Your task to perform on an android device: open app "WhatsApp Messenger" (install if not already installed) and enter user name: "cartons@outlook.com" and password: "approximated" Image 0: 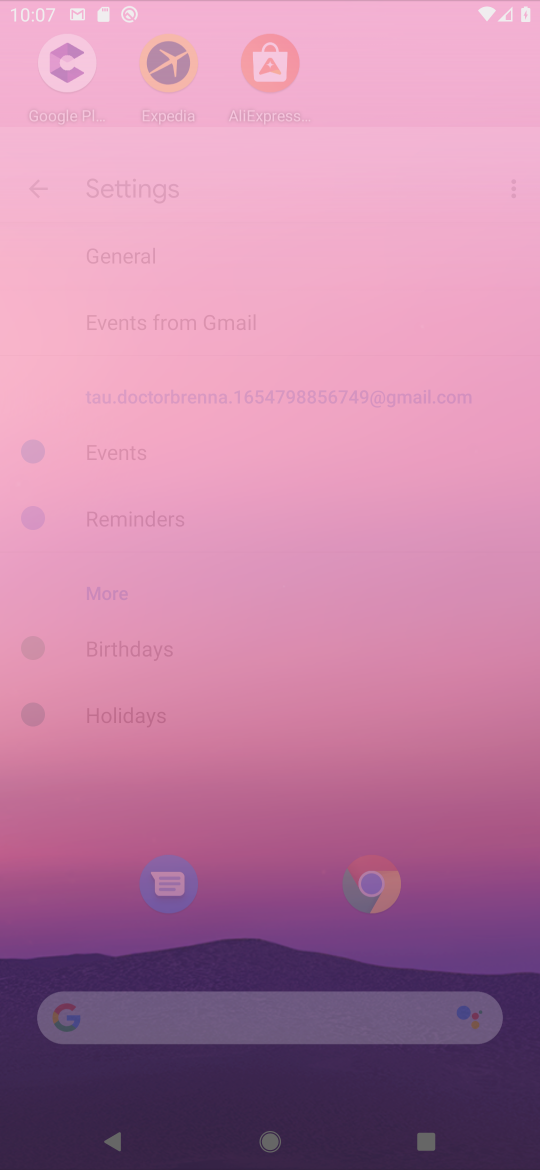
Step 0: press home button
Your task to perform on an android device: open app "WhatsApp Messenger" (install if not already installed) and enter user name: "cartons@outlook.com" and password: "approximated" Image 1: 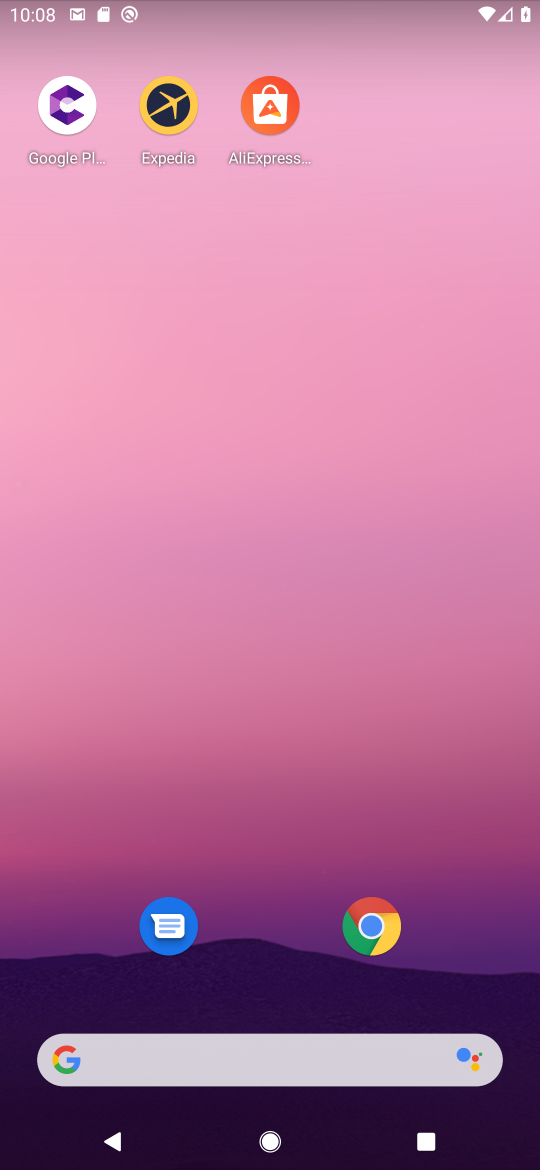
Step 1: drag from (284, 404) to (336, 288)
Your task to perform on an android device: open app "WhatsApp Messenger" (install if not already installed) and enter user name: "cartons@outlook.com" and password: "approximated" Image 2: 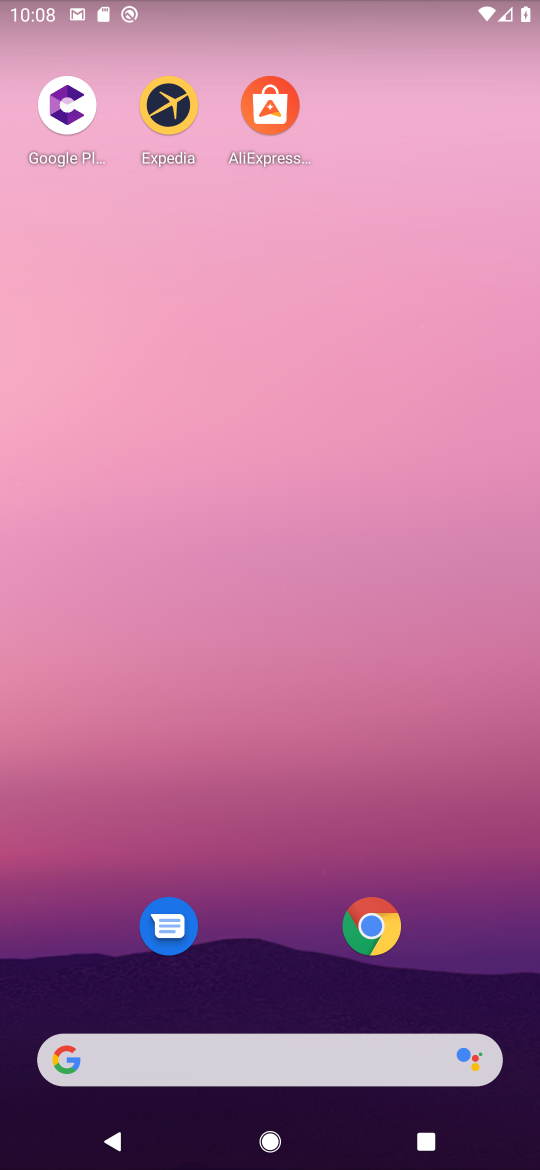
Step 2: drag from (274, 1020) to (355, 183)
Your task to perform on an android device: open app "WhatsApp Messenger" (install if not already installed) and enter user name: "cartons@outlook.com" and password: "approximated" Image 3: 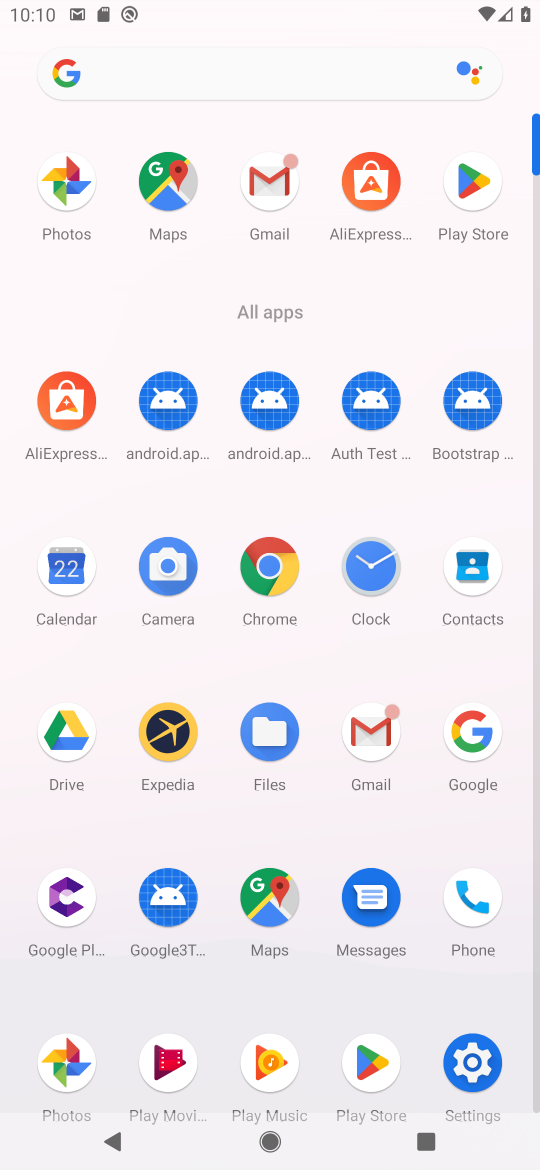
Step 3: click (462, 210)
Your task to perform on an android device: open app "WhatsApp Messenger" (install if not already installed) and enter user name: "cartons@outlook.com" and password: "approximated" Image 4: 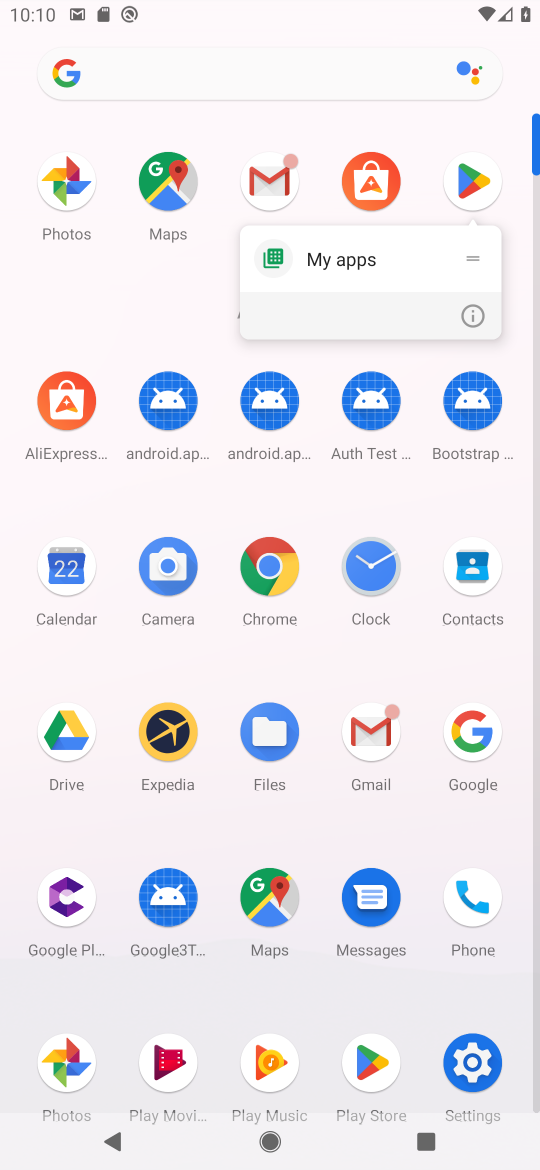
Step 4: click (467, 191)
Your task to perform on an android device: open app "WhatsApp Messenger" (install if not already installed) and enter user name: "cartons@outlook.com" and password: "approximated" Image 5: 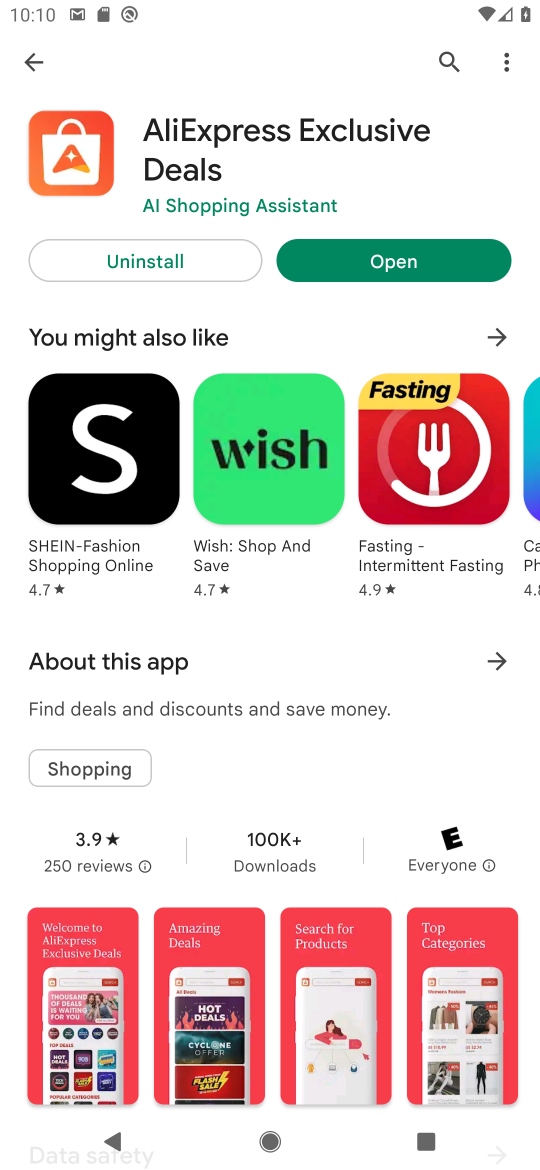
Step 5: press back button
Your task to perform on an android device: open app "WhatsApp Messenger" (install if not already installed) and enter user name: "cartons@outlook.com" and password: "approximated" Image 6: 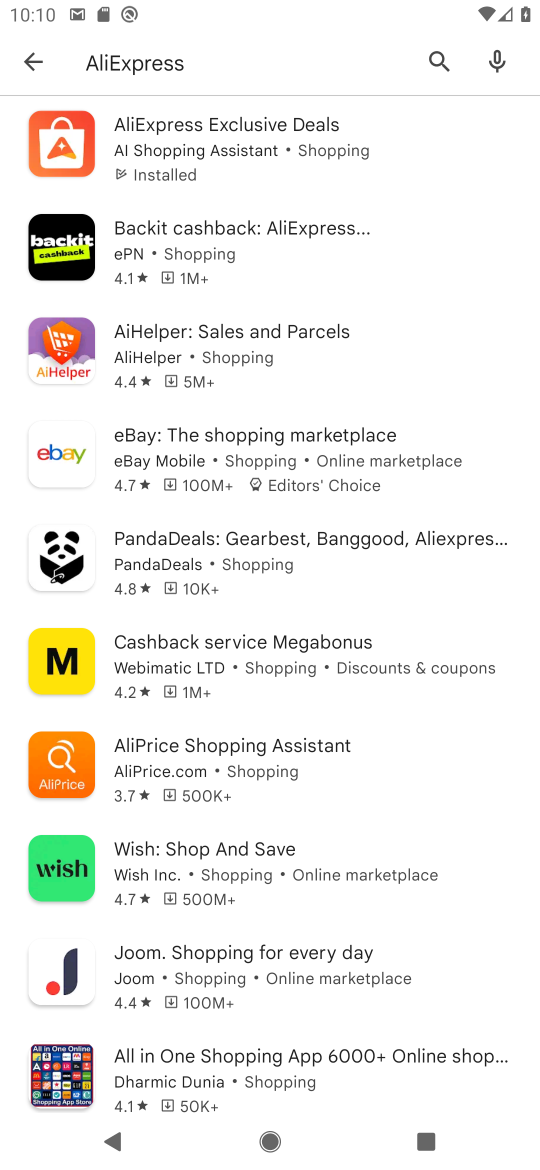
Step 6: press enter
Your task to perform on an android device: open app "WhatsApp Messenger" (install if not already installed) and enter user name: "cartons@outlook.com" and password: "approximated" Image 7: 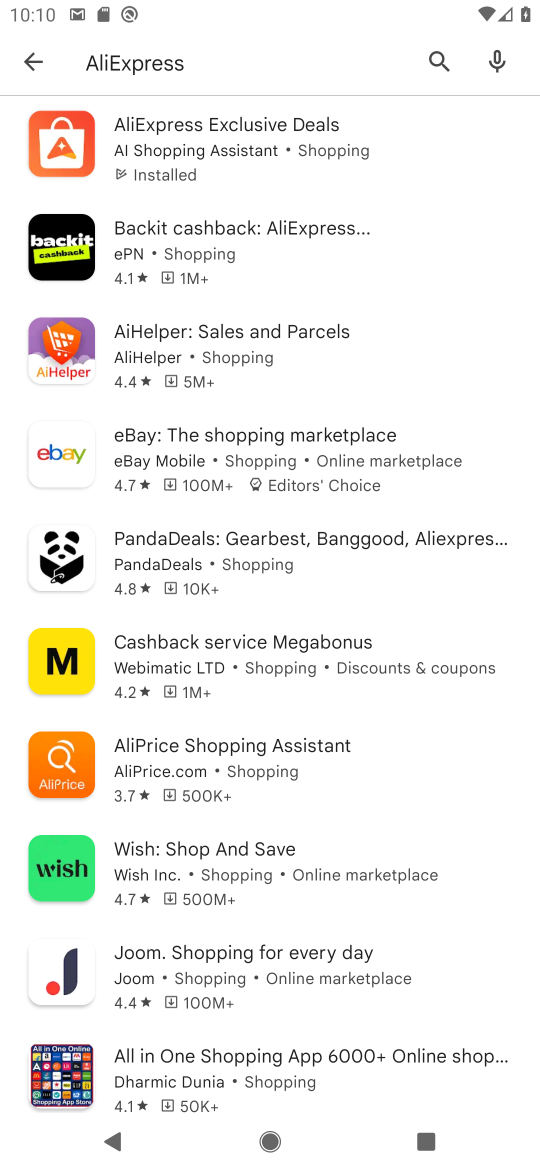
Step 7: type "WhatsApp Messenger"
Your task to perform on an android device: open app "WhatsApp Messenger" (install if not already installed) and enter user name: "cartons@outlook.com" and password: "approximated" Image 8: 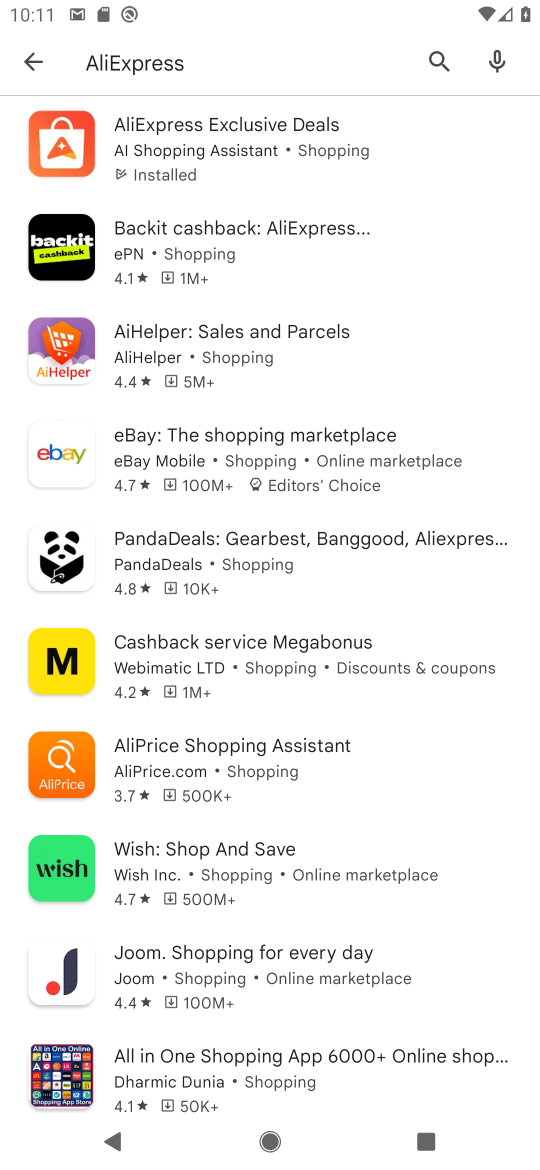
Step 8: press back button
Your task to perform on an android device: open app "WhatsApp Messenger" (install if not already installed) and enter user name: "cartons@outlook.com" and password: "approximated" Image 9: 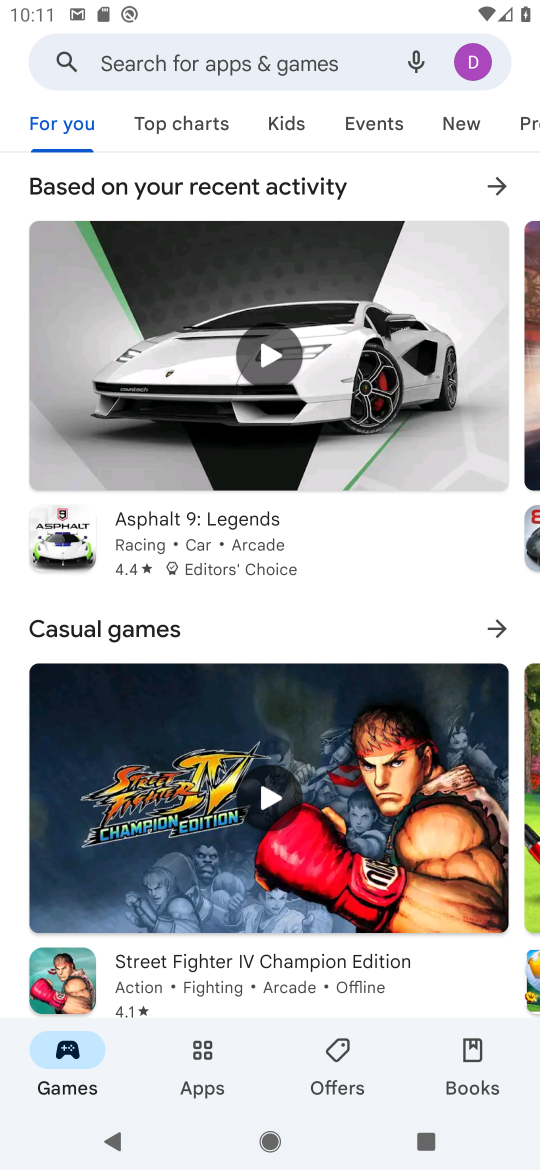
Step 9: click (213, 76)
Your task to perform on an android device: open app "WhatsApp Messenger" (install if not already installed) and enter user name: "cartons@outlook.com" and password: "approximated" Image 10: 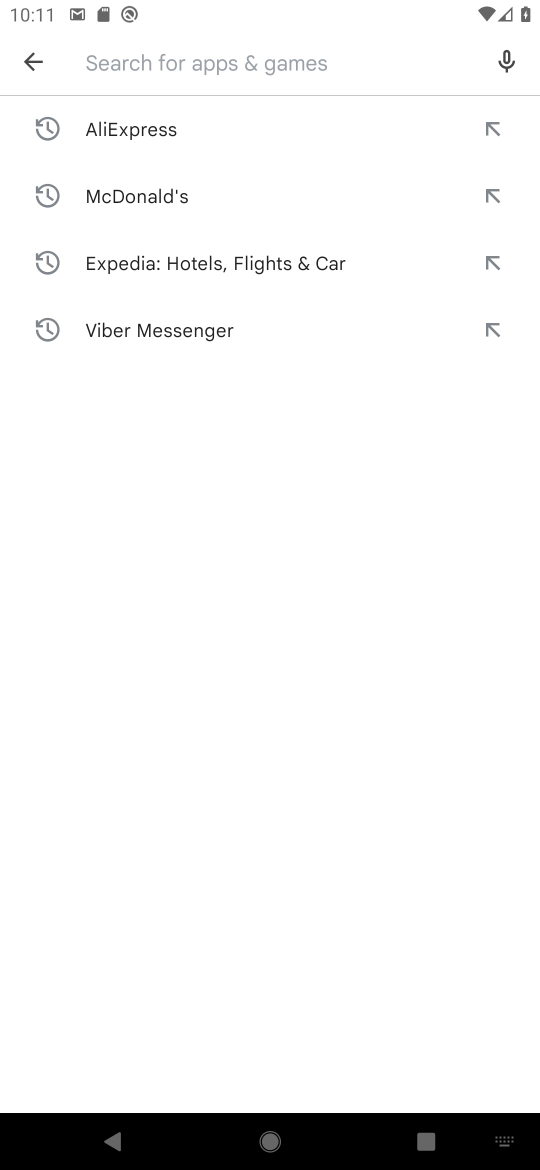
Step 10: drag from (10, 1154) to (89, 843)
Your task to perform on an android device: open app "WhatsApp Messenger" (install if not already installed) and enter user name: "cartons@outlook.com" and password: "approximated" Image 11: 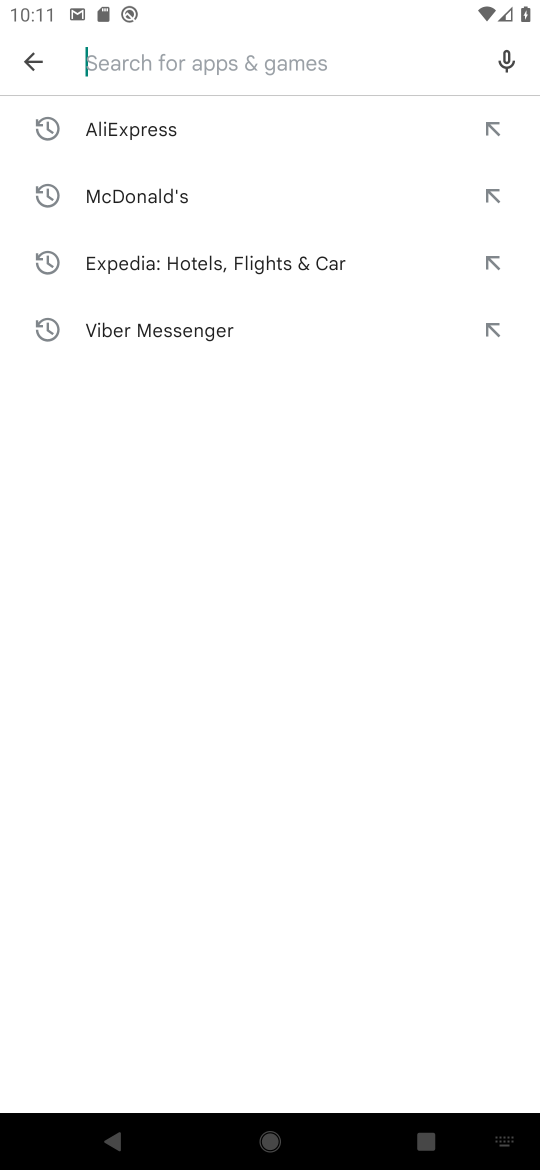
Step 11: type "WhatsApp Messenge"
Your task to perform on an android device: open app "WhatsApp Messenger" (install if not already installed) and enter user name: "cartons@outlook.com" and password: "approximated" Image 12: 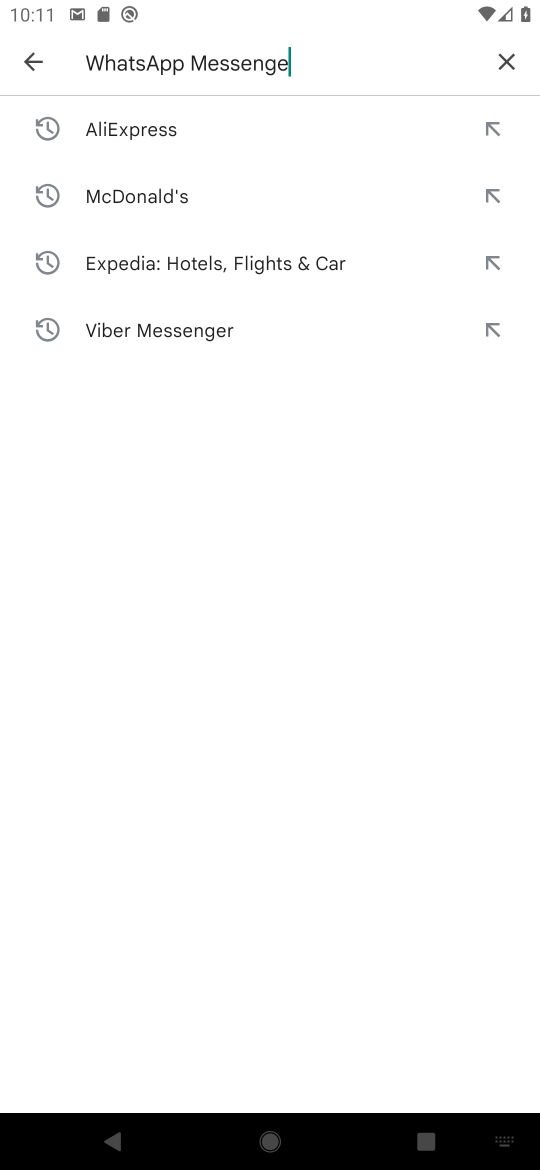
Step 12: press enter
Your task to perform on an android device: open app "WhatsApp Messenger" (install if not already installed) and enter user name: "cartons@outlook.com" and password: "approximated" Image 13: 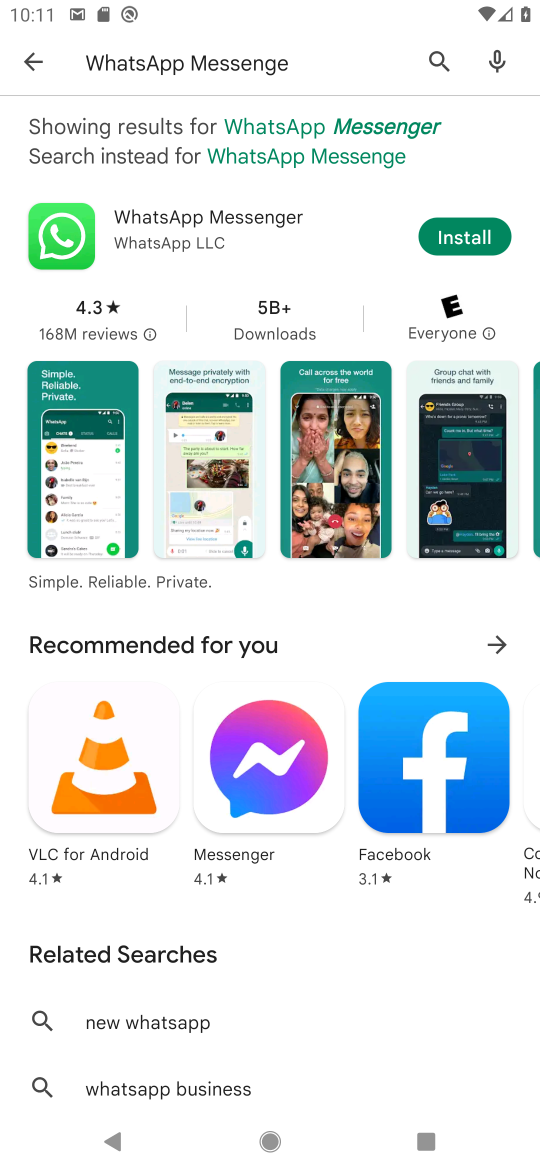
Step 13: click (459, 237)
Your task to perform on an android device: open app "WhatsApp Messenger" (install if not already installed) and enter user name: "cartons@outlook.com" and password: "approximated" Image 14: 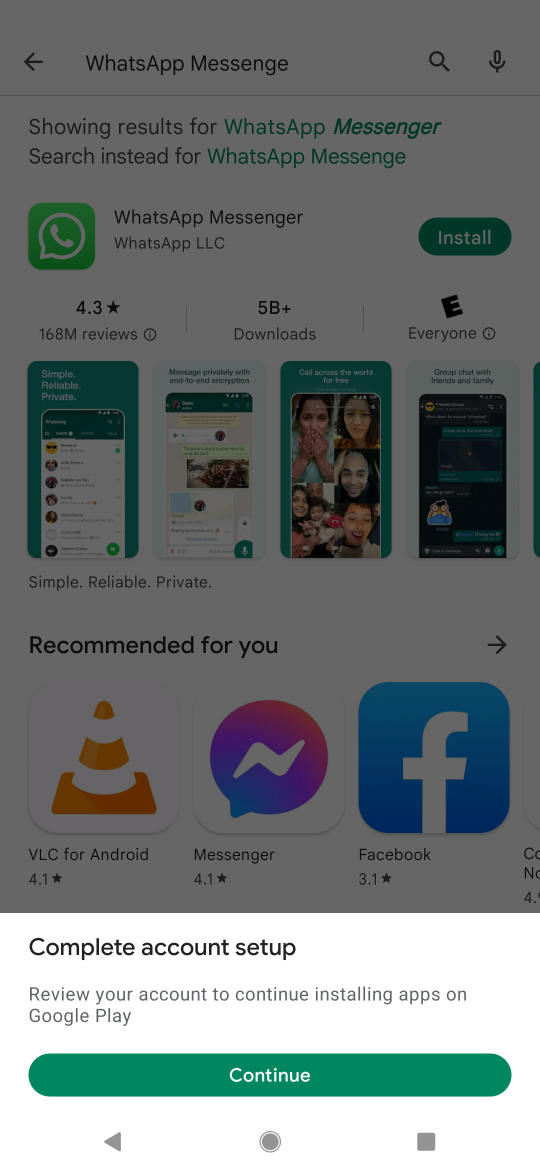
Step 14: click (255, 1089)
Your task to perform on an android device: open app "WhatsApp Messenger" (install if not already installed) and enter user name: "cartons@outlook.com" and password: "approximated" Image 15: 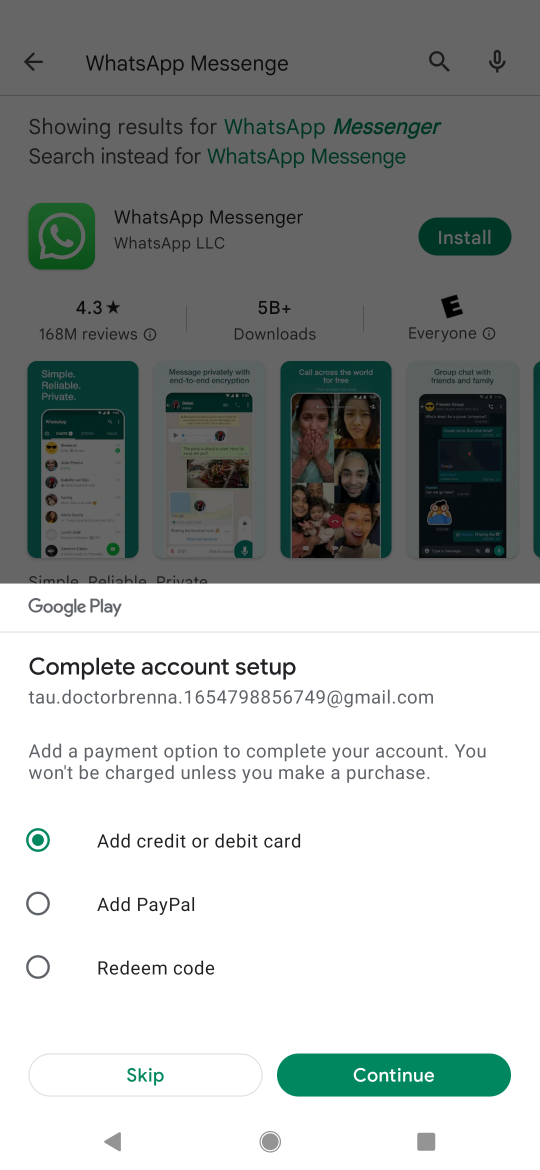
Step 15: click (160, 1089)
Your task to perform on an android device: open app "WhatsApp Messenger" (install if not already installed) and enter user name: "cartons@outlook.com" and password: "approximated" Image 16: 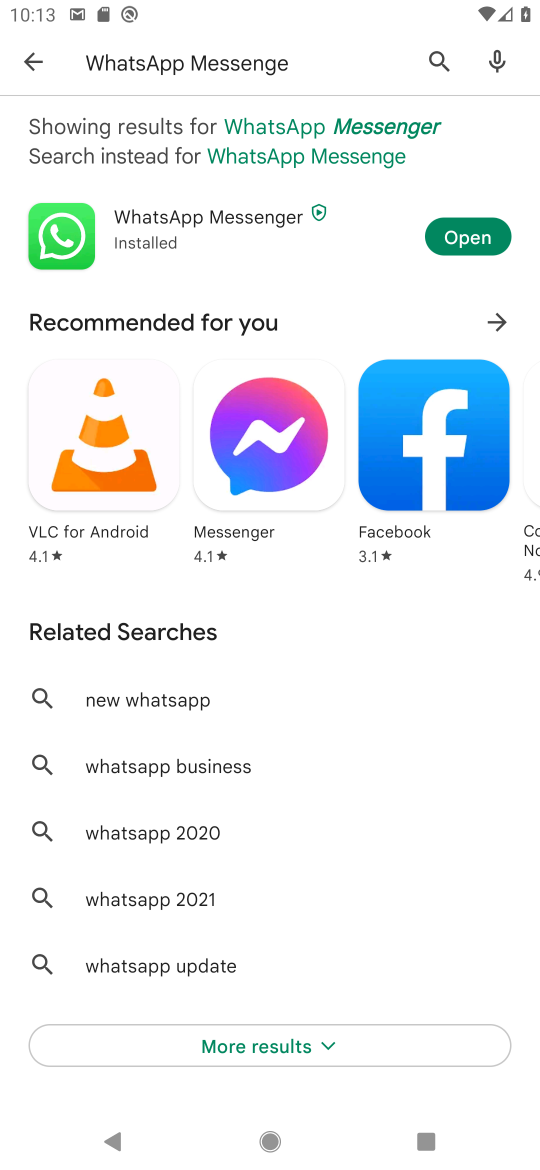
Step 16: click (449, 244)
Your task to perform on an android device: open app "WhatsApp Messenger" (install if not already installed) and enter user name: "cartons@outlook.com" and password: "approximated" Image 17: 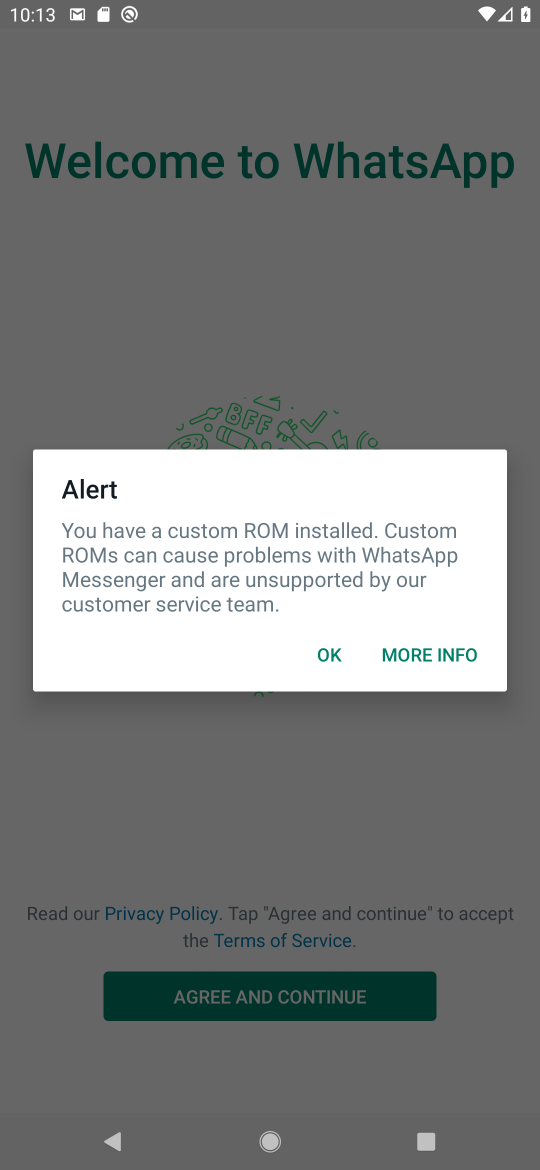
Step 17: click (332, 663)
Your task to perform on an android device: open app "WhatsApp Messenger" (install if not already installed) and enter user name: "cartons@outlook.com" and password: "approximated" Image 18: 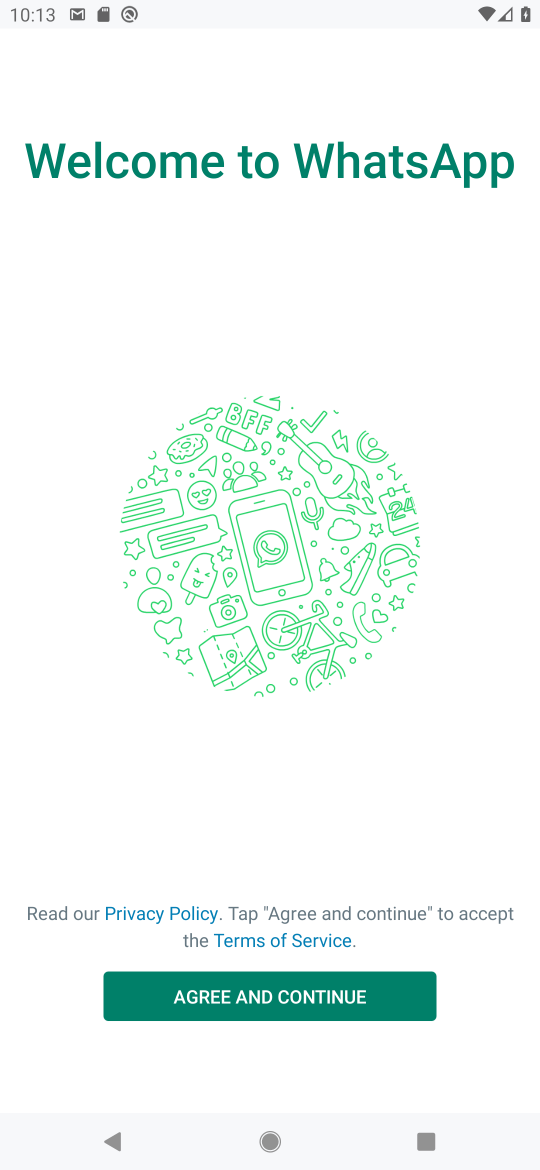
Step 18: click (176, 1005)
Your task to perform on an android device: open app "WhatsApp Messenger" (install if not already installed) and enter user name: "cartons@outlook.com" and password: "approximated" Image 19: 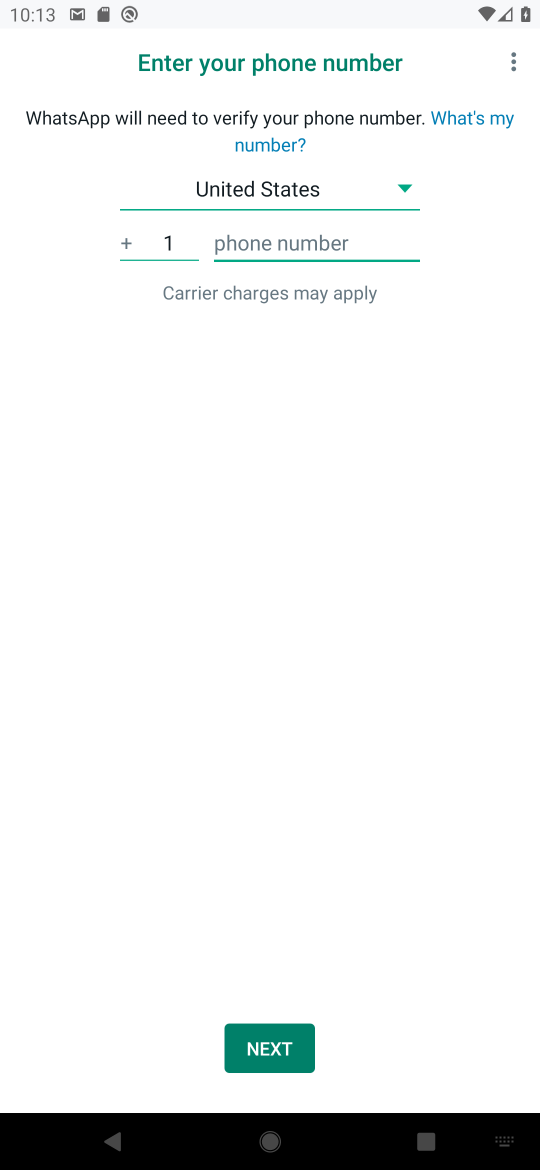
Step 19: task complete